Your task to perform on an android device: read, delete, or share a saved page in the chrome app Image 0: 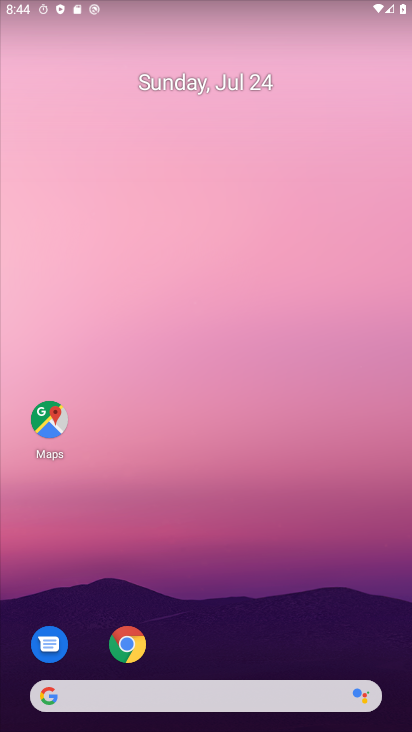
Step 0: click (119, 650)
Your task to perform on an android device: read, delete, or share a saved page in the chrome app Image 1: 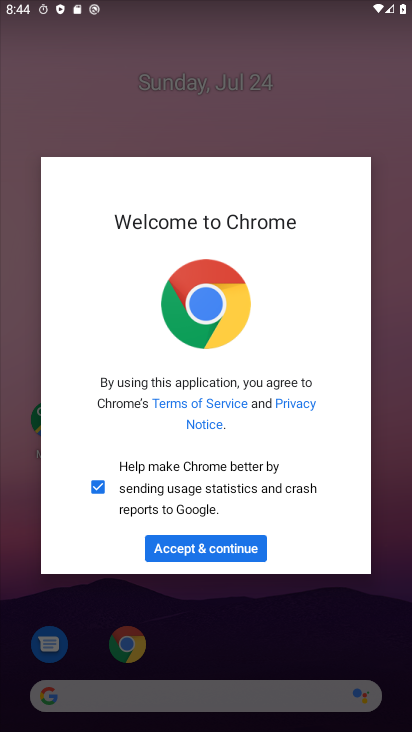
Step 1: click (214, 546)
Your task to perform on an android device: read, delete, or share a saved page in the chrome app Image 2: 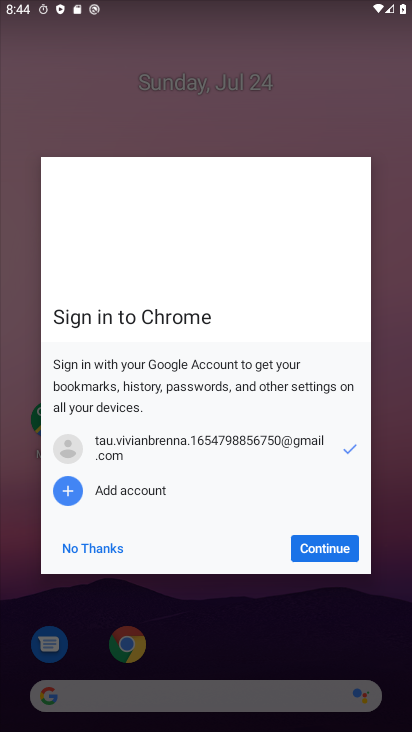
Step 2: click (308, 554)
Your task to perform on an android device: read, delete, or share a saved page in the chrome app Image 3: 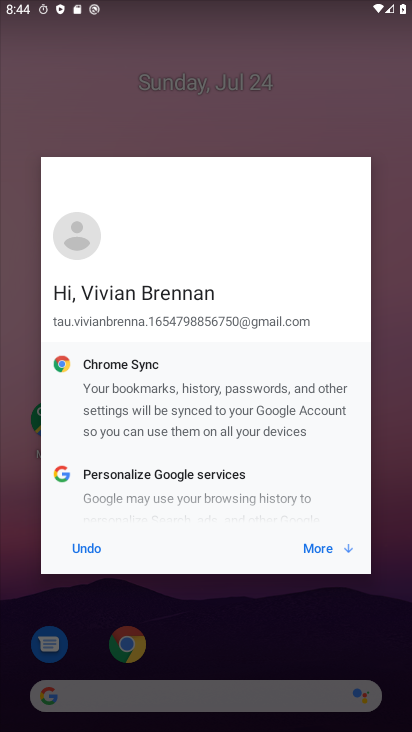
Step 3: click (308, 553)
Your task to perform on an android device: read, delete, or share a saved page in the chrome app Image 4: 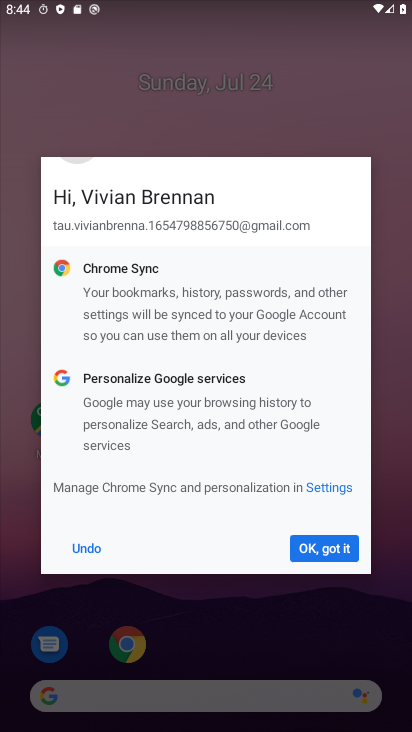
Step 4: click (308, 553)
Your task to perform on an android device: read, delete, or share a saved page in the chrome app Image 5: 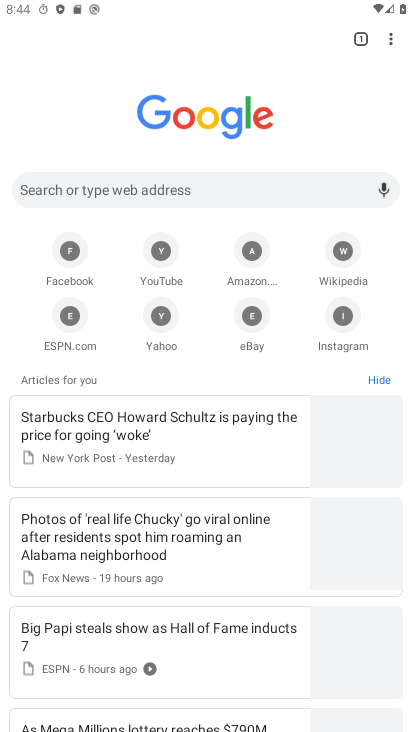
Step 5: click (385, 38)
Your task to perform on an android device: read, delete, or share a saved page in the chrome app Image 6: 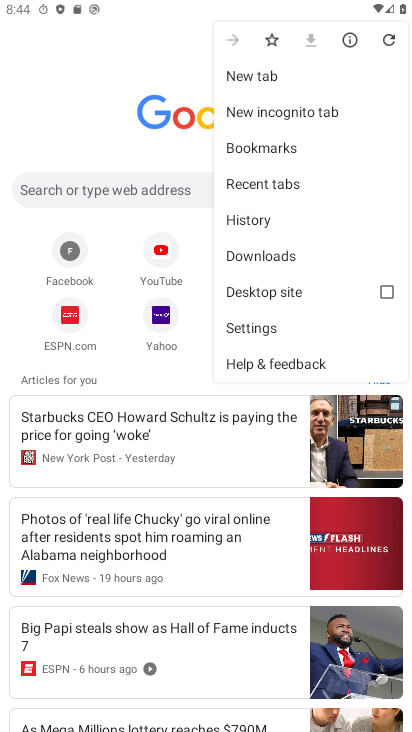
Step 6: click (251, 258)
Your task to perform on an android device: read, delete, or share a saved page in the chrome app Image 7: 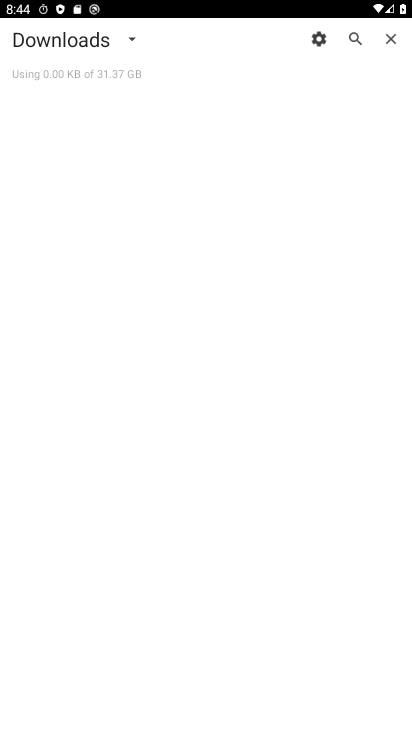
Step 7: click (127, 37)
Your task to perform on an android device: read, delete, or share a saved page in the chrome app Image 8: 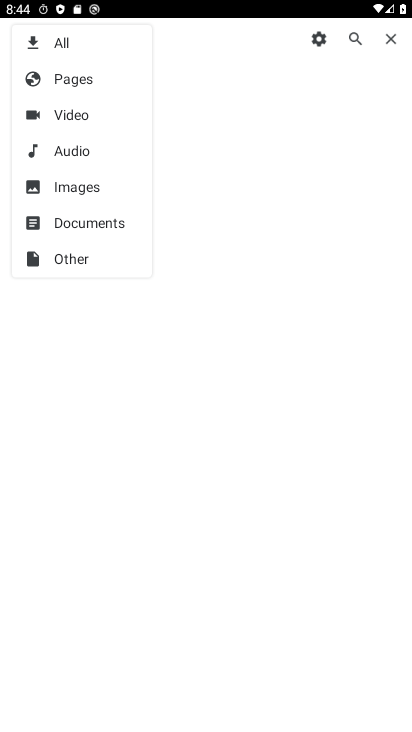
Step 8: click (64, 74)
Your task to perform on an android device: read, delete, or share a saved page in the chrome app Image 9: 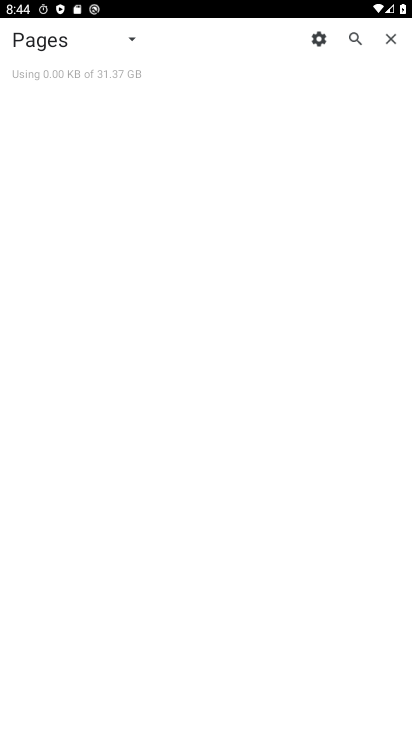
Step 9: task complete